Your task to perform on an android device: check android version Image 0: 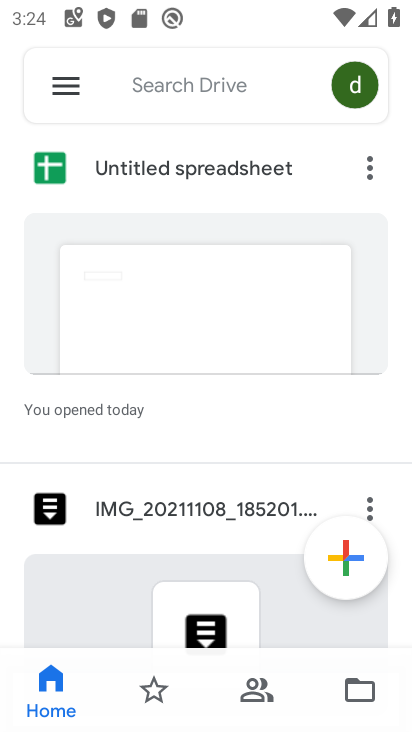
Step 0: press home button
Your task to perform on an android device: check android version Image 1: 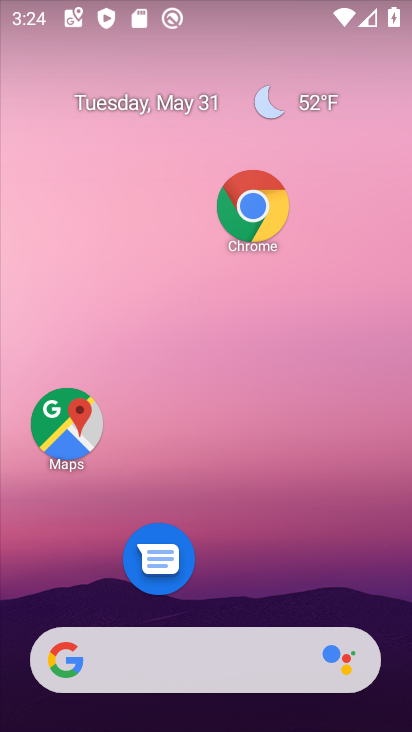
Step 1: drag from (228, 592) to (239, 168)
Your task to perform on an android device: check android version Image 2: 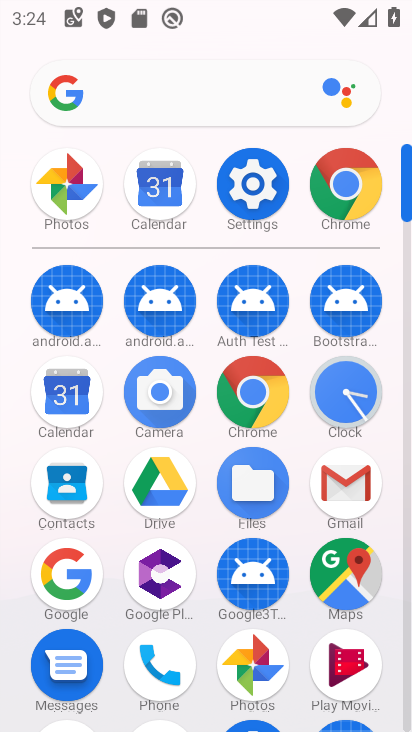
Step 2: click (223, 188)
Your task to perform on an android device: check android version Image 3: 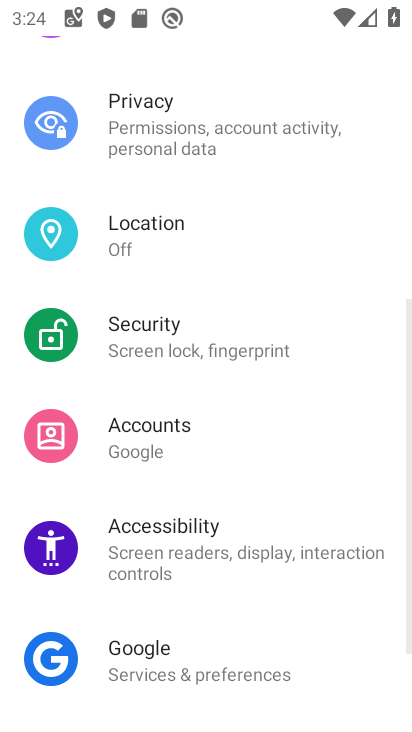
Step 3: drag from (131, 650) to (216, 272)
Your task to perform on an android device: check android version Image 4: 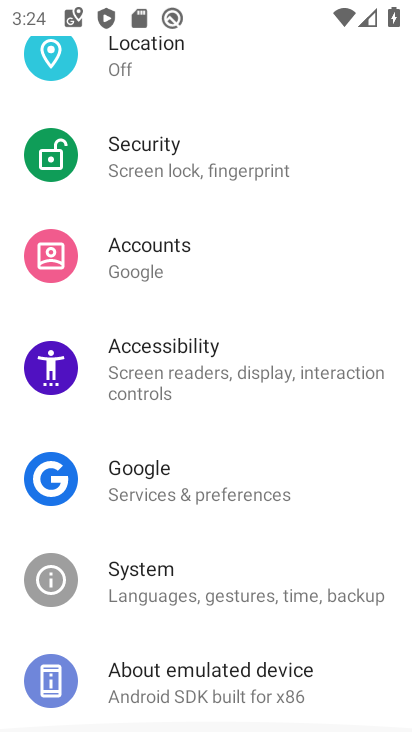
Step 4: drag from (168, 628) to (235, 320)
Your task to perform on an android device: check android version Image 5: 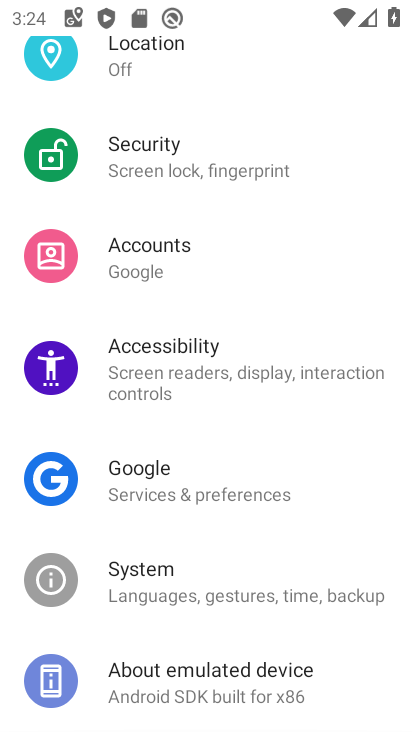
Step 5: click (184, 673)
Your task to perform on an android device: check android version Image 6: 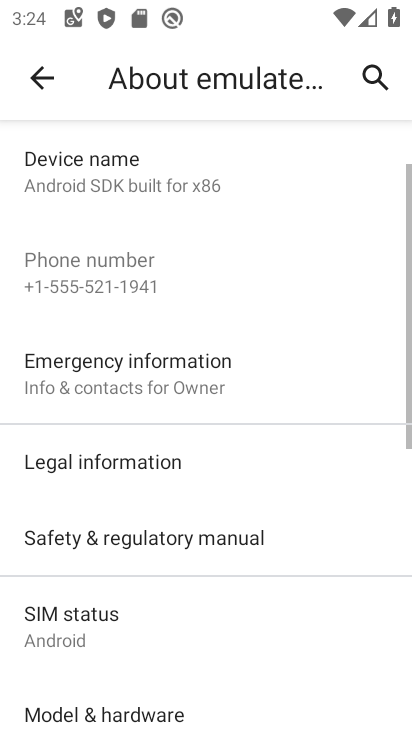
Step 6: drag from (186, 236) to (199, 595)
Your task to perform on an android device: check android version Image 7: 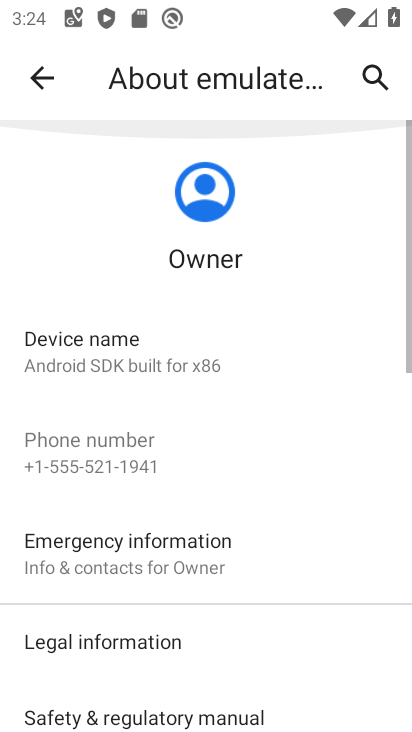
Step 7: drag from (199, 588) to (266, 271)
Your task to perform on an android device: check android version Image 8: 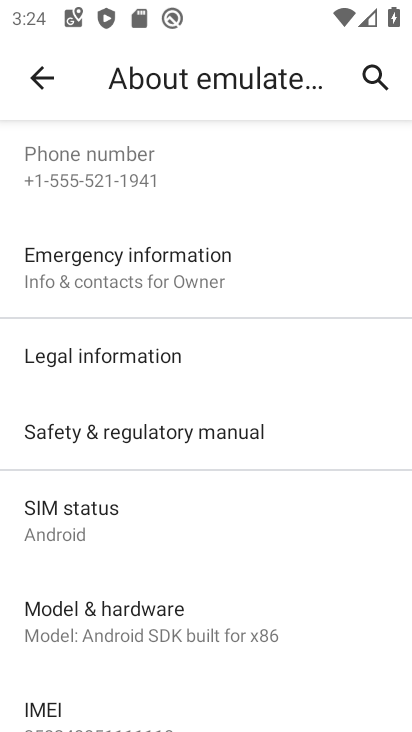
Step 8: drag from (218, 524) to (218, 200)
Your task to perform on an android device: check android version Image 9: 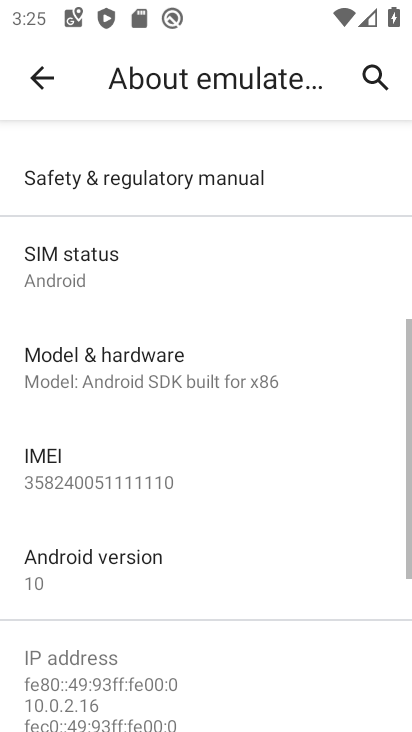
Step 9: click (124, 574)
Your task to perform on an android device: check android version Image 10: 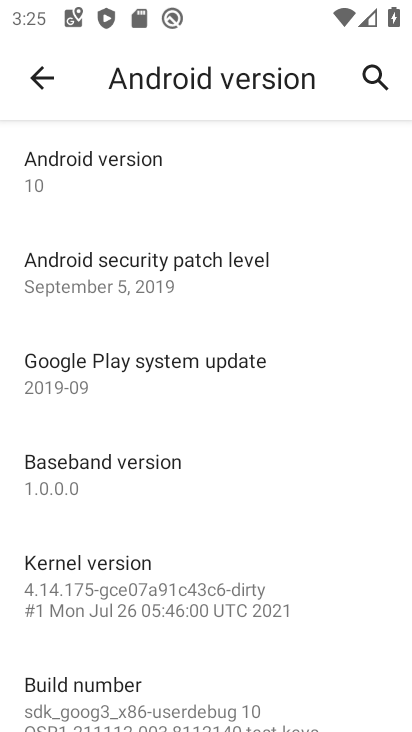
Step 10: click (232, 182)
Your task to perform on an android device: check android version Image 11: 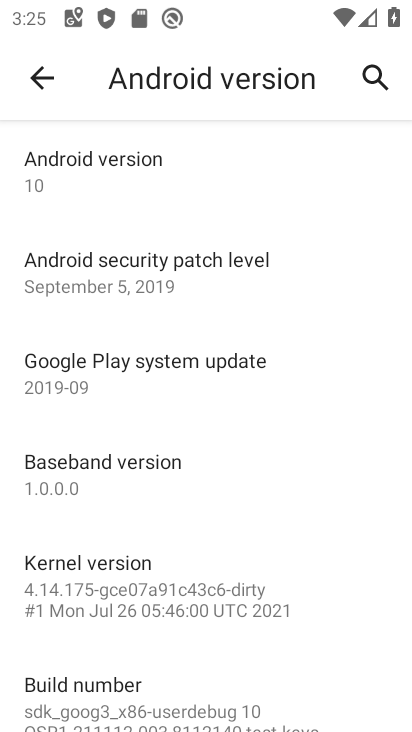
Step 11: task complete